Your task to perform on an android device: move a message to another label in the gmail app Image 0: 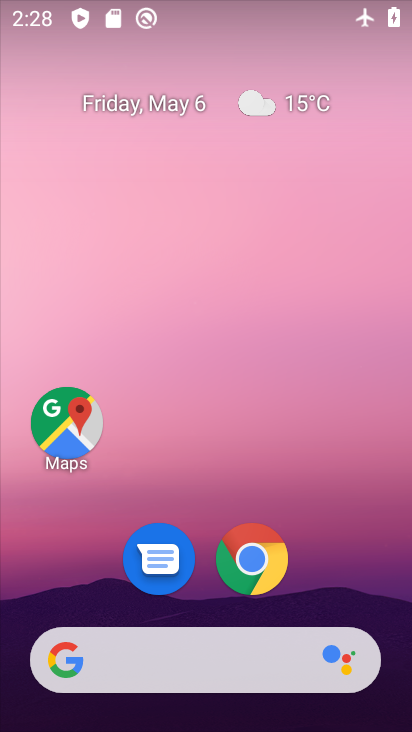
Step 0: drag from (330, 550) to (288, 99)
Your task to perform on an android device: move a message to another label in the gmail app Image 1: 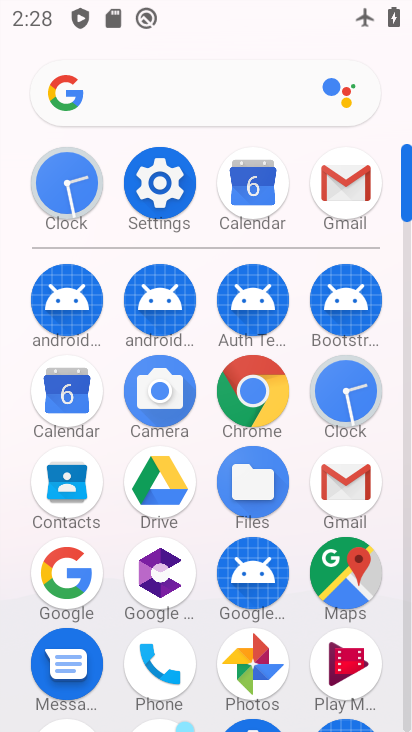
Step 1: click (349, 489)
Your task to perform on an android device: move a message to another label in the gmail app Image 2: 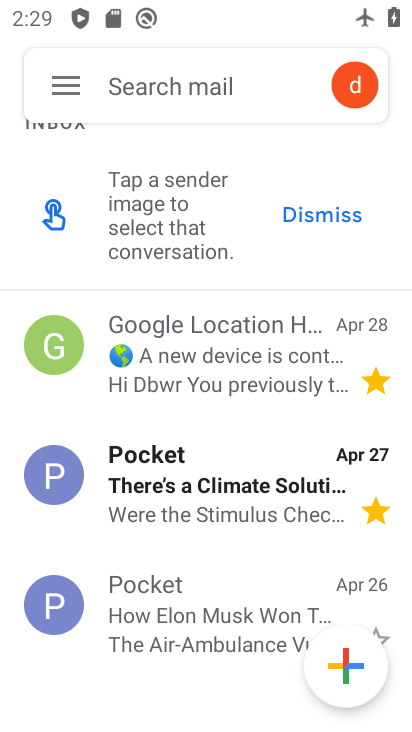
Step 2: click (218, 372)
Your task to perform on an android device: move a message to another label in the gmail app Image 3: 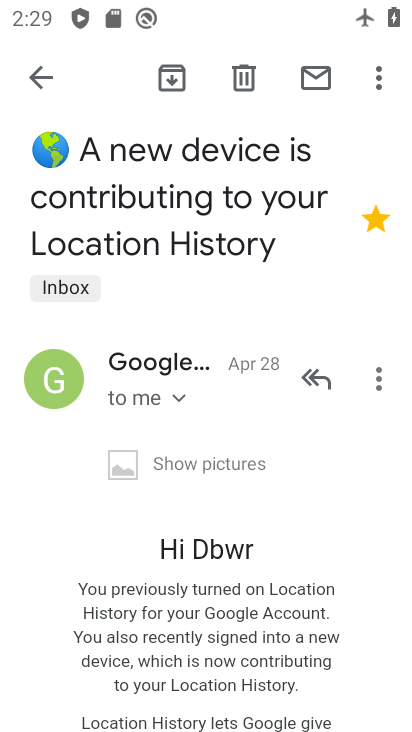
Step 3: click (371, 82)
Your task to perform on an android device: move a message to another label in the gmail app Image 4: 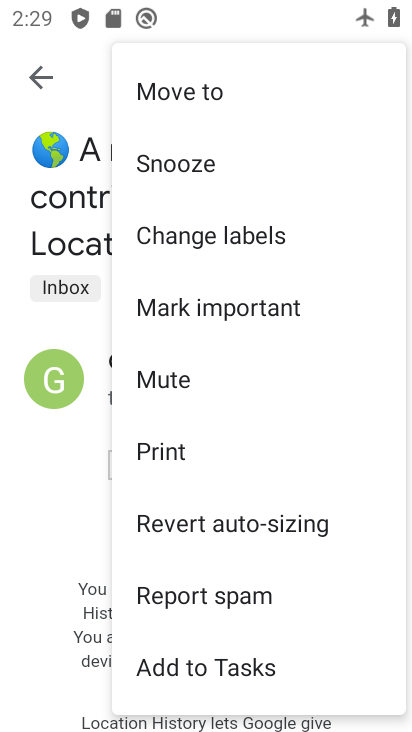
Step 4: click (240, 221)
Your task to perform on an android device: move a message to another label in the gmail app Image 5: 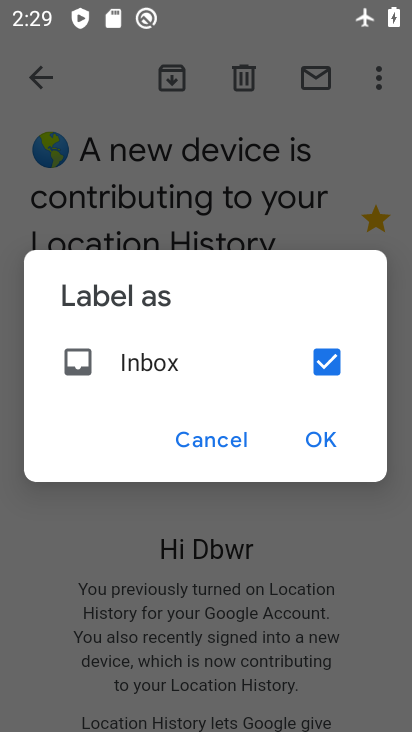
Step 5: click (301, 450)
Your task to perform on an android device: move a message to another label in the gmail app Image 6: 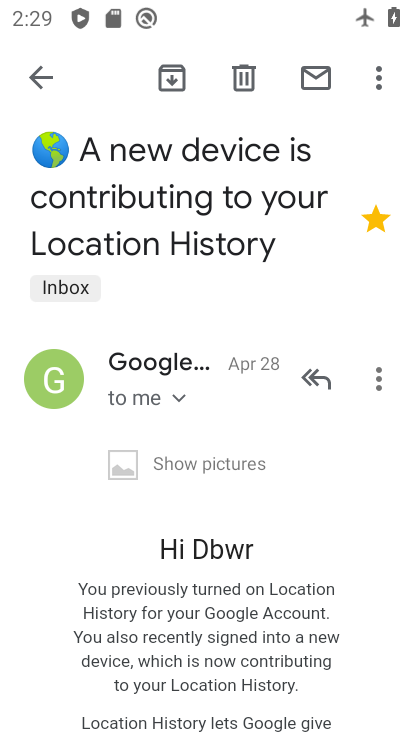
Step 6: task complete